Your task to perform on an android device: toggle airplane mode Image 0: 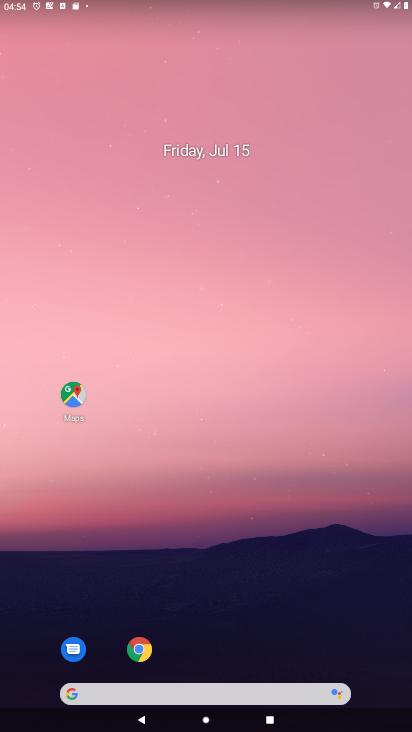
Step 0: drag from (380, 670) to (314, 78)
Your task to perform on an android device: toggle airplane mode Image 1: 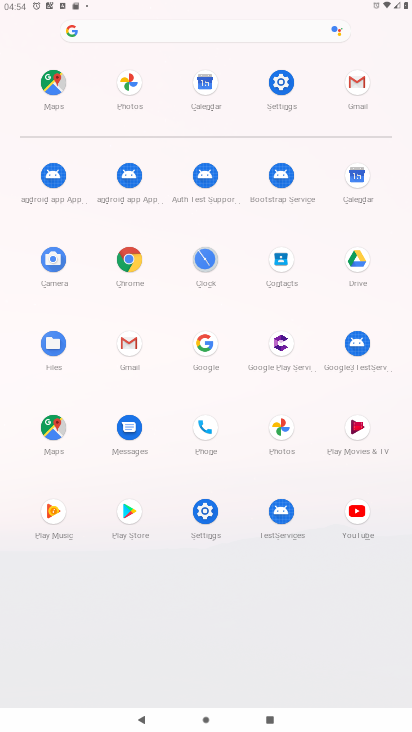
Step 1: click (204, 510)
Your task to perform on an android device: toggle airplane mode Image 2: 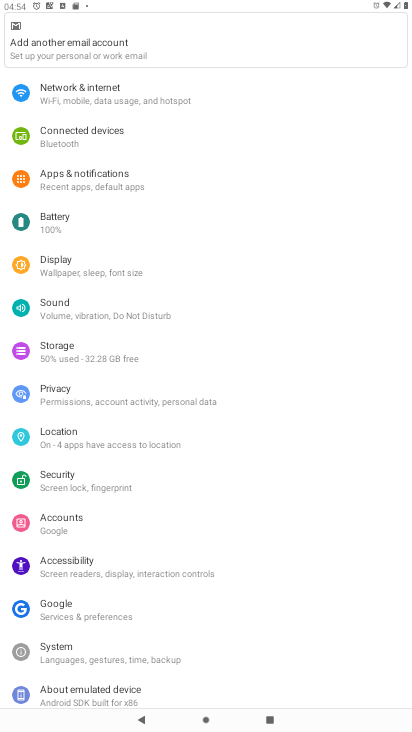
Step 2: click (65, 87)
Your task to perform on an android device: toggle airplane mode Image 3: 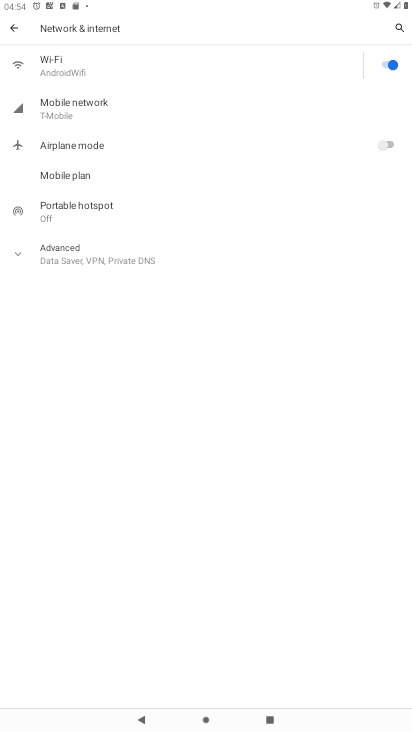
Step 3: click (389, 145)
Your task to perform on an android device: toggle airplane mode Image 4: 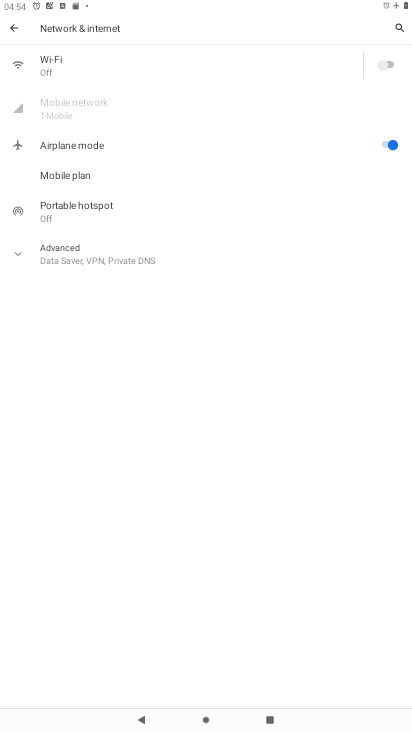
Step 4: task complete